Your task to perform on an android device: turn on translation in the chrome app Image 0: 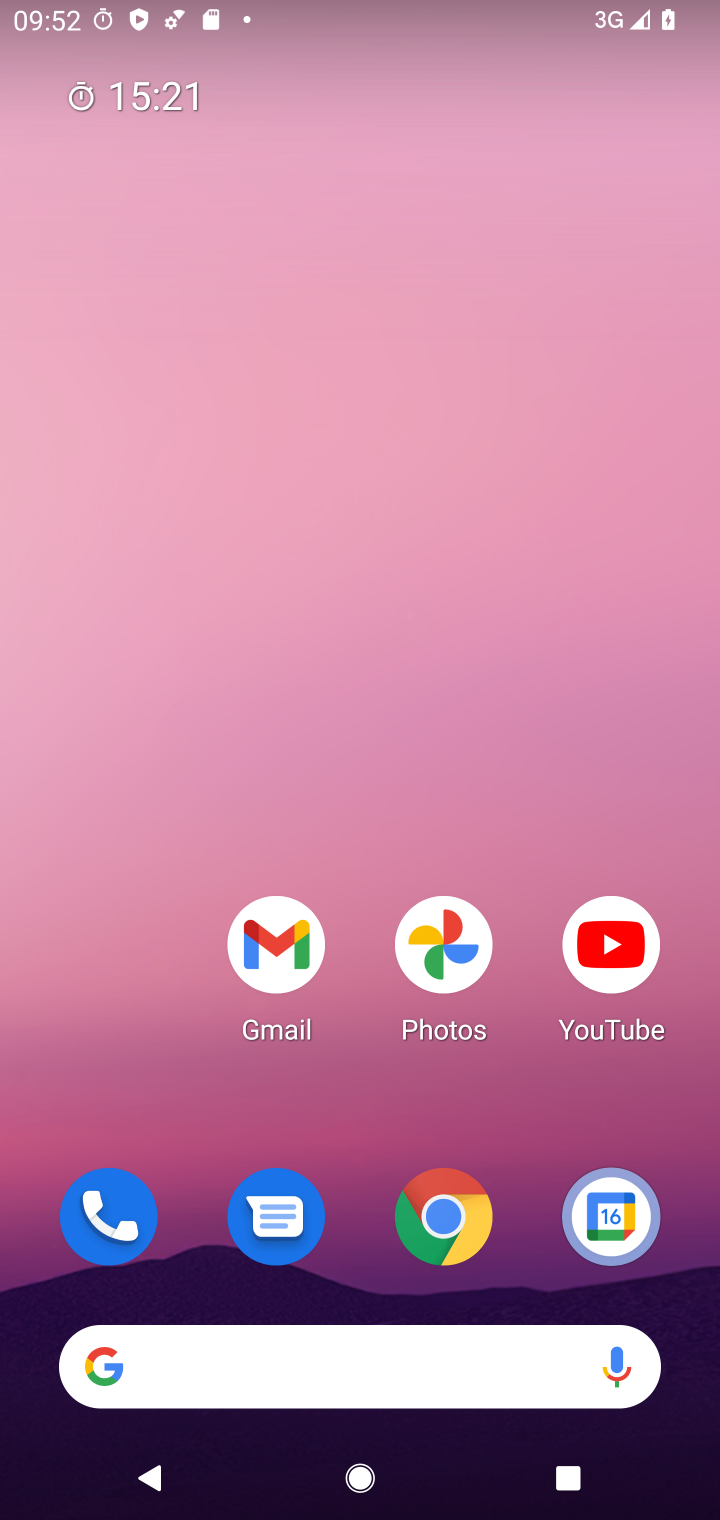
Step 0: click (441, 1218)
Your task to perform on an android device: turn on translation in the chrome app Image 1: 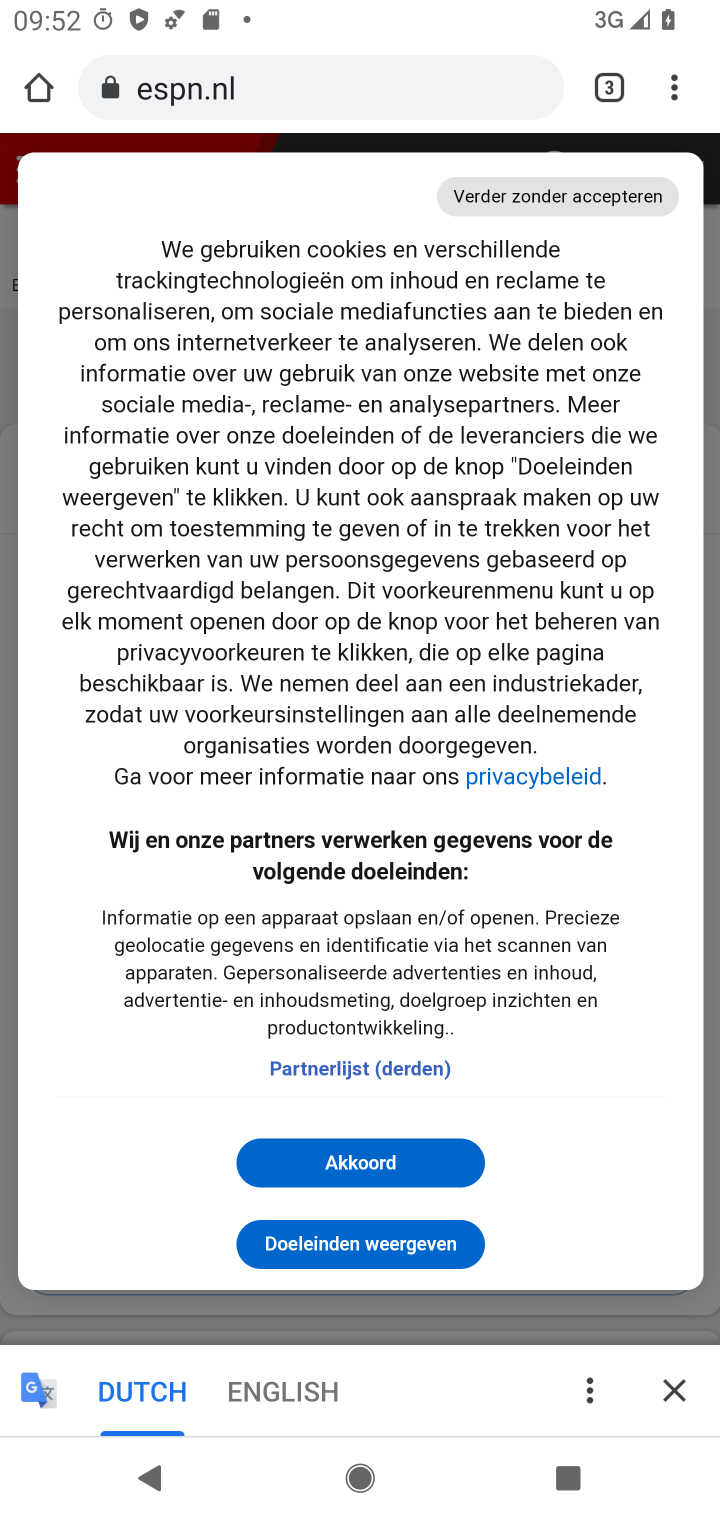
Step 1: drag from (677, 93) to (455, 1180)
Your task to perform on an android device: turn on translation in the chrome app Image 2: 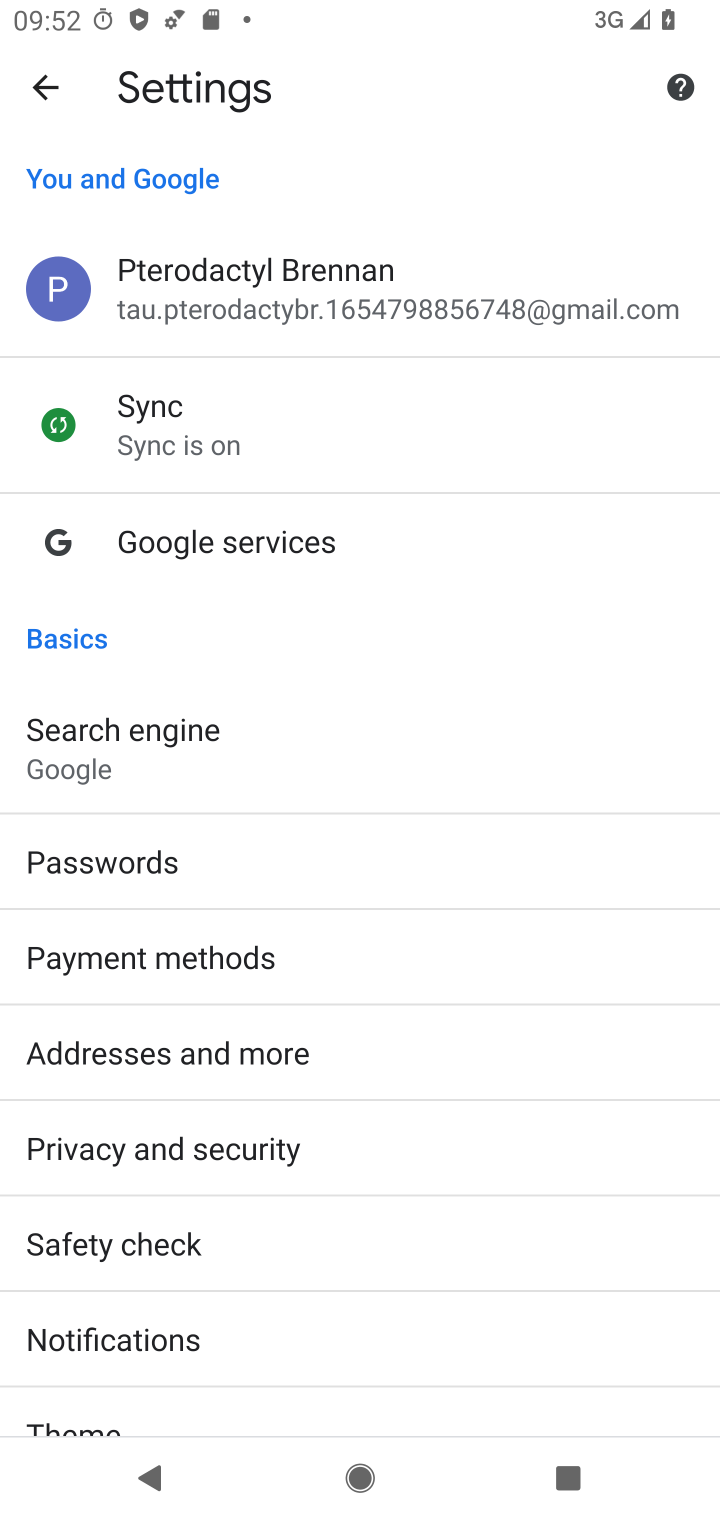
Step 2: drag from (238, 1321) to (226, 558)
Your task to perform on an android device: turn on translation in the chrome app Image 3: 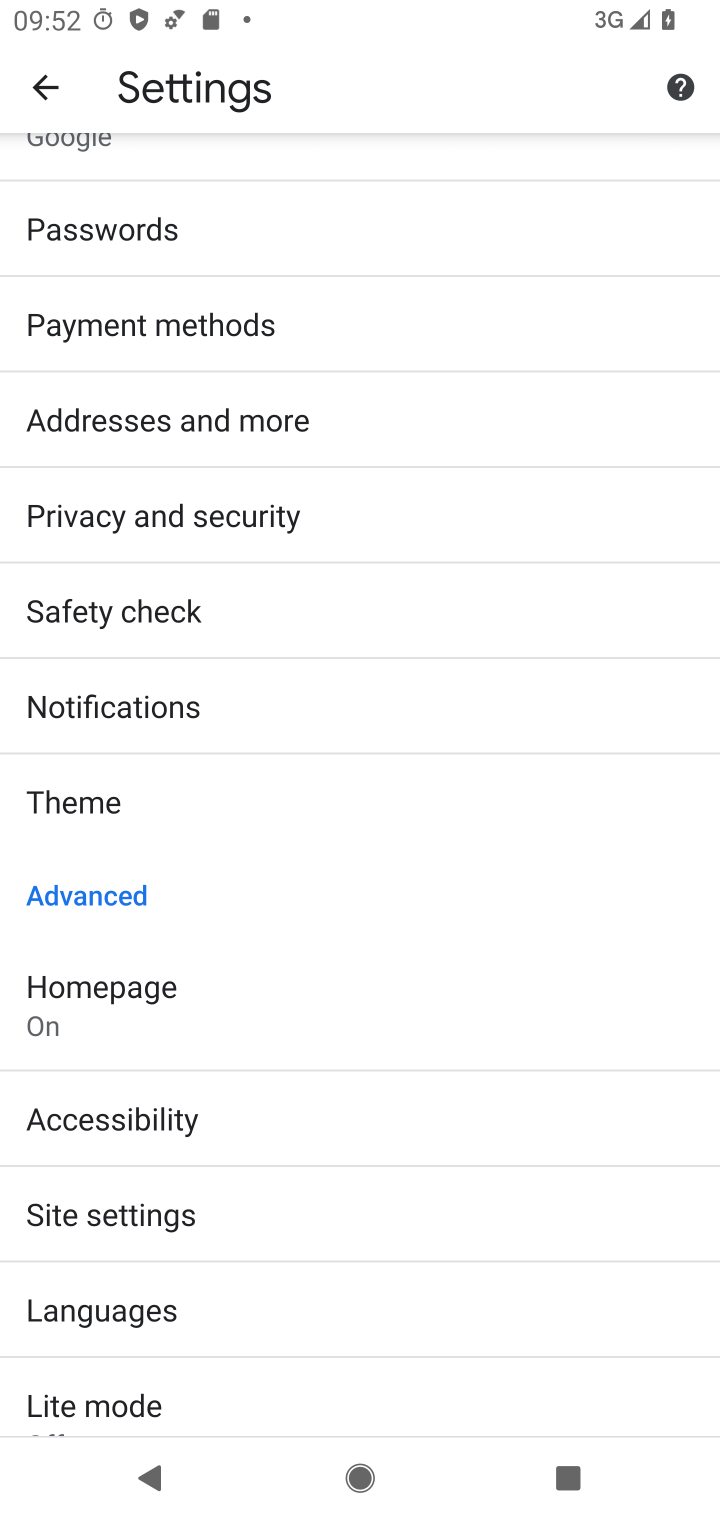
Step 3: click (130, 1311)
Your task to perform on an android device: turn on translation in the chrome app Image 4: 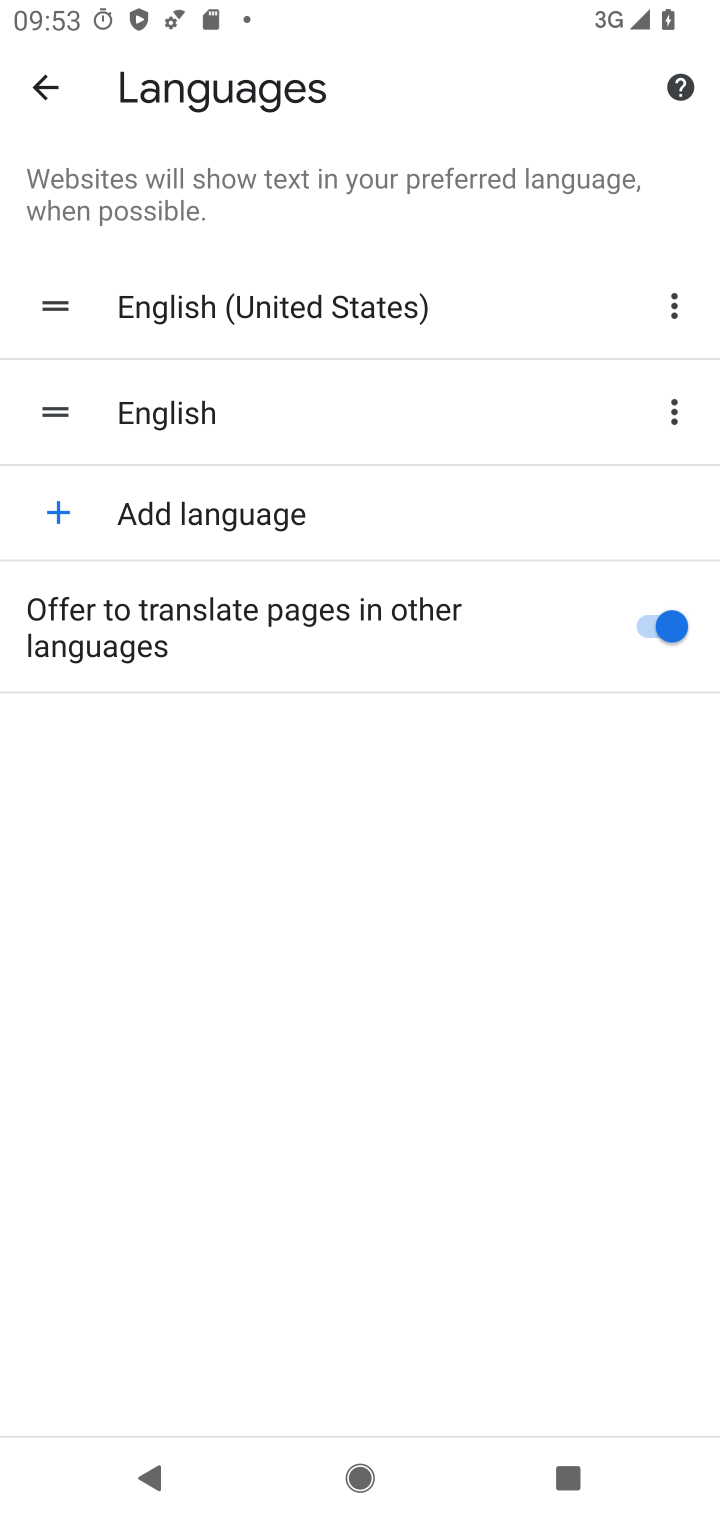
Step 4: task complete